Your task to perform on an android device: add a contact in the contacts app Image 0: 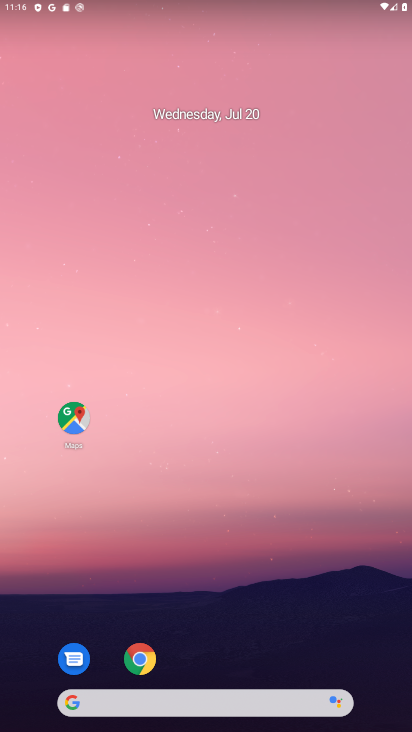
Step 0: drag from (378, 633) to (352, 202)
Your task to perform on an android device: add a contact in the contacts app Image 1: 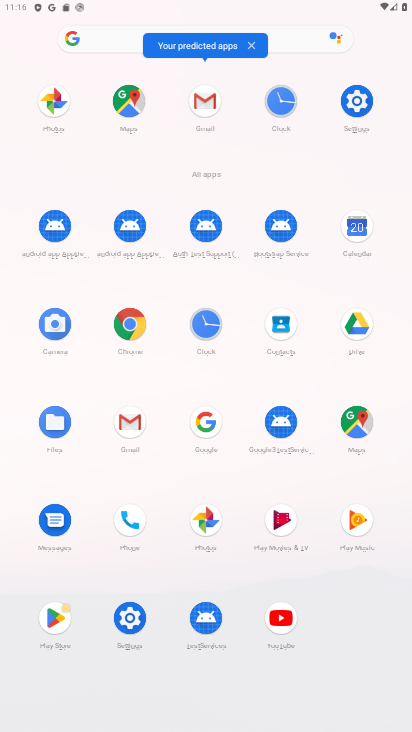
Step 1: click (283, 323)
Your task to perform on an android device: add a contact in the contacts app Image 2: 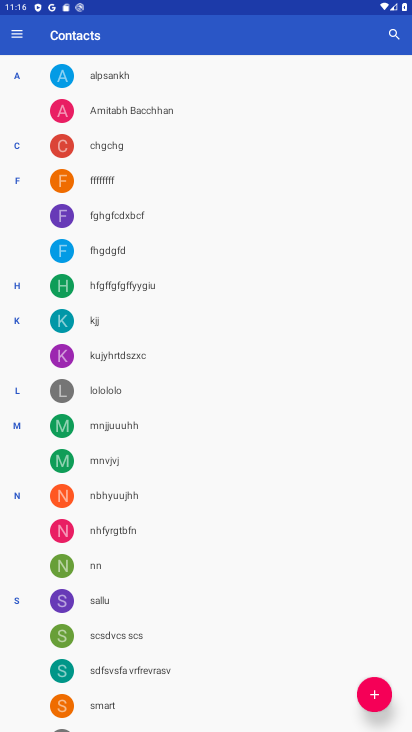
Step 2: click (376, 693)
Your task to perform on an android device: add a contact in the contacts app Image 3: 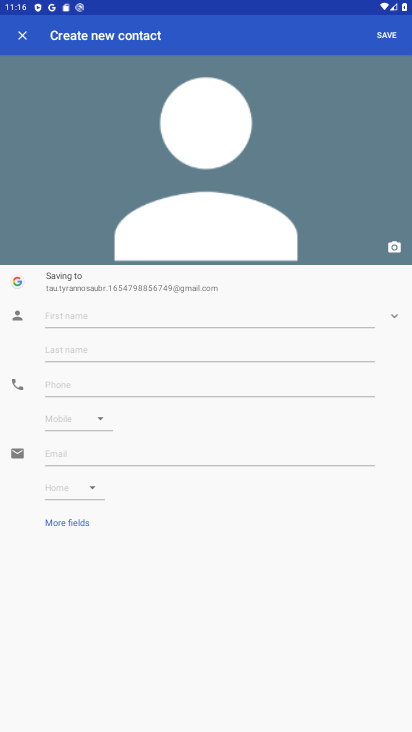
Step 3: click (133, 310)
Your task to perform on an android device: add a contact in the contacts app Image 4: 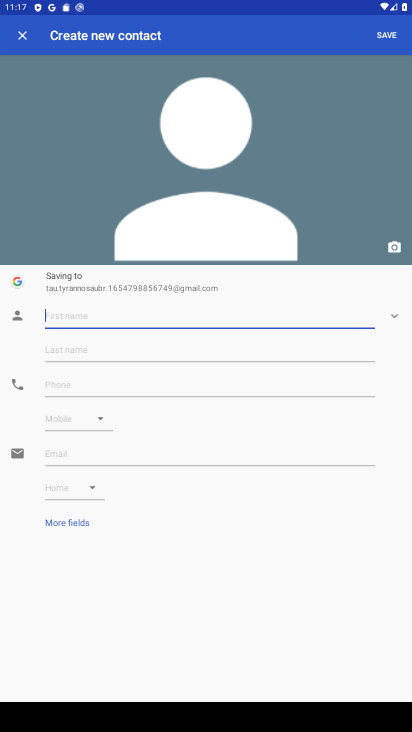
Step 4: type "utyioogmn"
Your task to perform on an android device: add a contact in the contacts app Image 5: 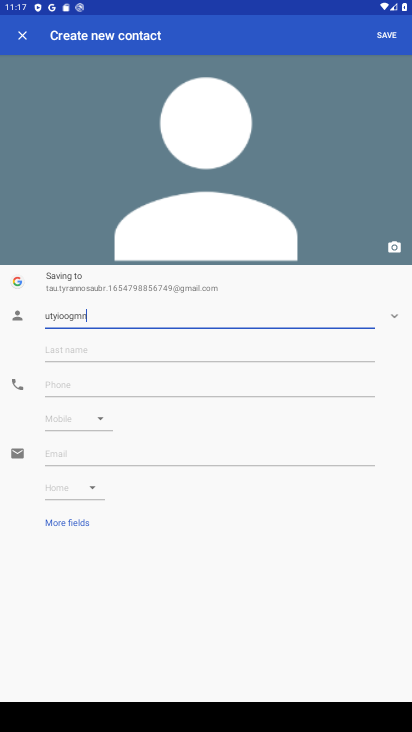
Step 5: click (75, 382)
Your task to perform on an android device: add a contact in the contacts app Image 6: 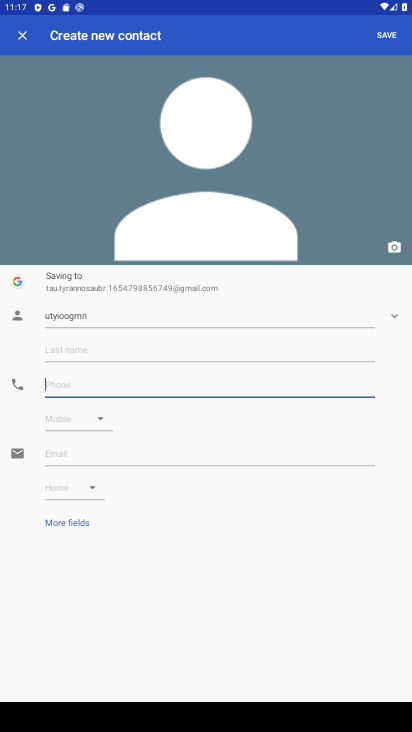
Step 6: type "0987643245"
Your task to perform on an android device: add a contact in the contacts app Image 7: 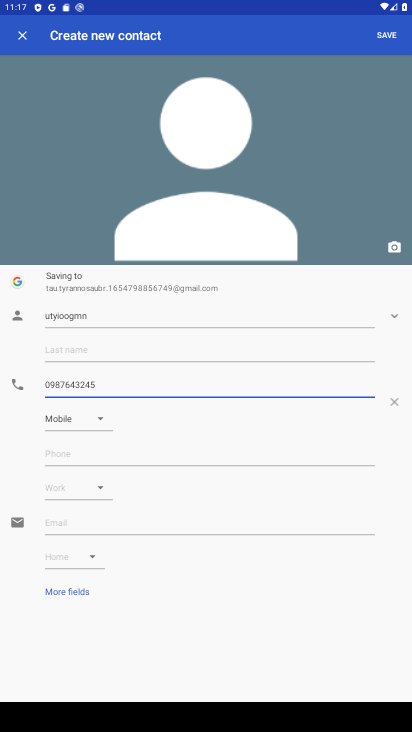
Step 7: click (101, 418)
Your task to perform on an android device: add a contact in the contacts app Image 8: 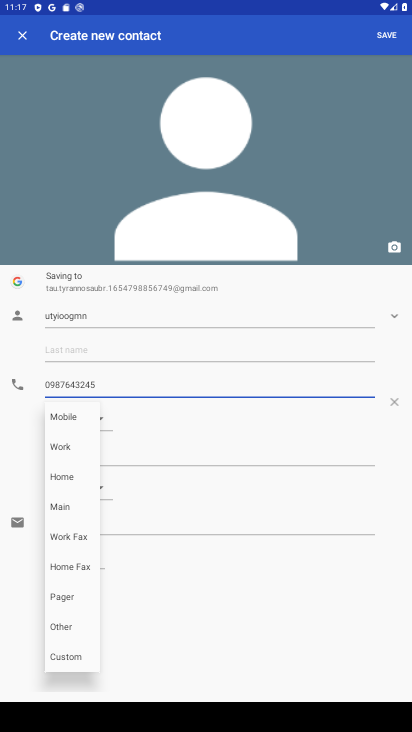
Step 8: click (68, 450)
Your task to perform on an android device: add a contact in the contacts app Image 9: 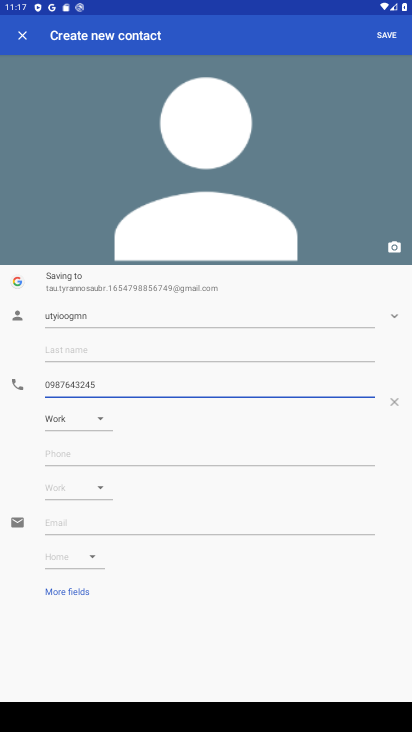
Step 9: click (384, 33)
Your task to perform on an android device: add a contact in the contacts app Image 10: 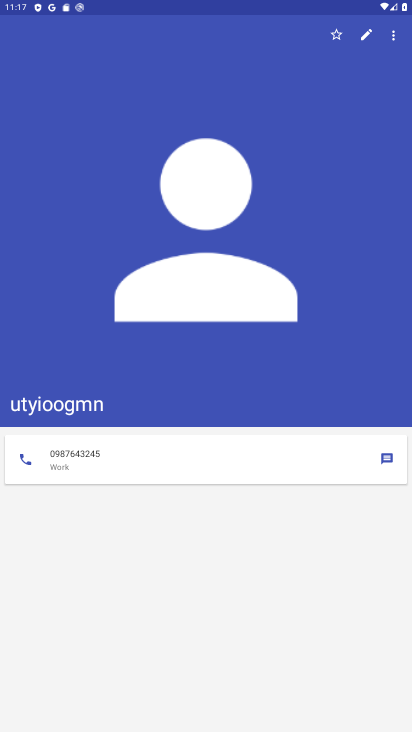
Step 10: task complete